Your task to perform on an android device: Go to network settings Image 0: 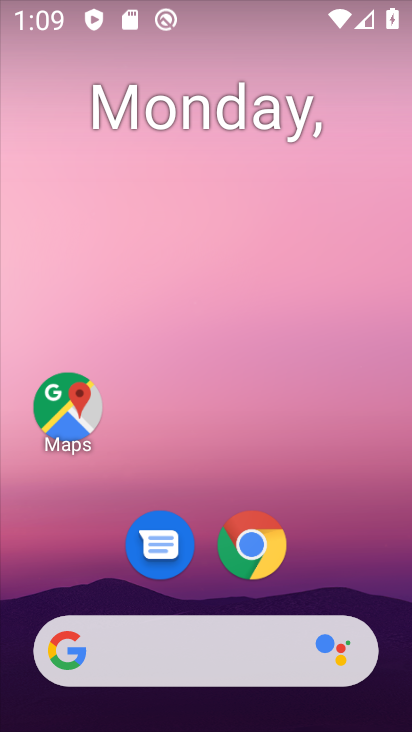
Step 0: drag from (221, 720) to (215, 149)
Your task to perform on an android device: Go to network settings Image 1: 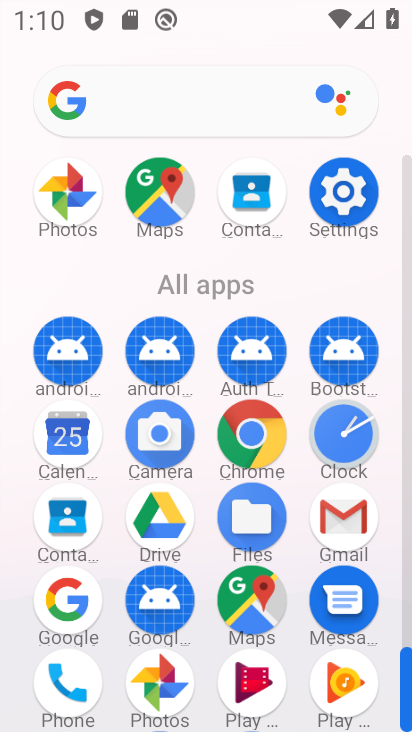
Step 1: click (338, 177)
Your task to perform on an android device: Go to network settings Image 2: 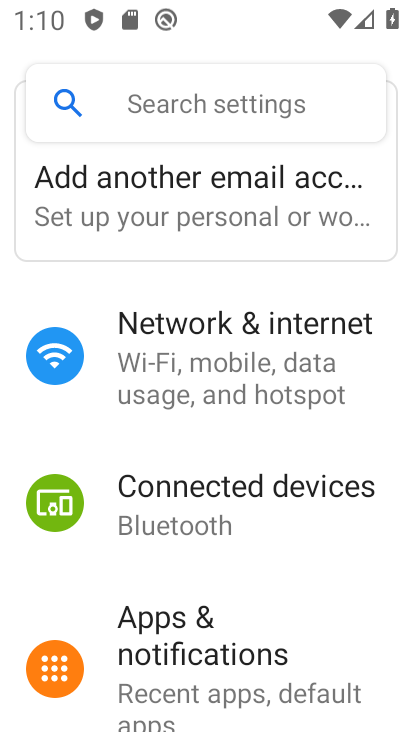
Step 2: click (180, 344)
Your task to perform on an android device: Go to network settings Image 3: 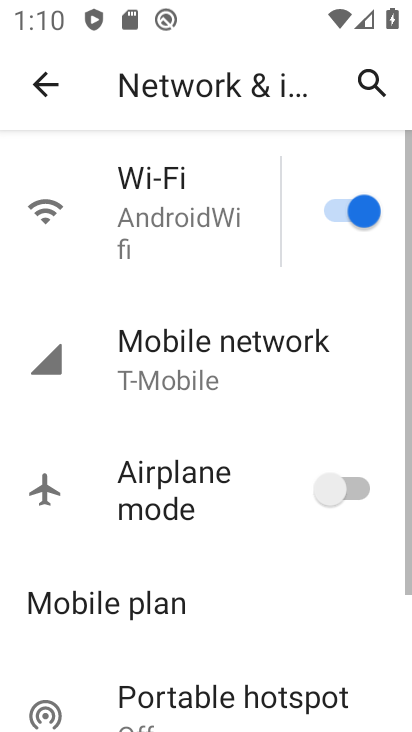
Step 3: task complete